Your task to perform on an android device: What's the weather today? Image 0: 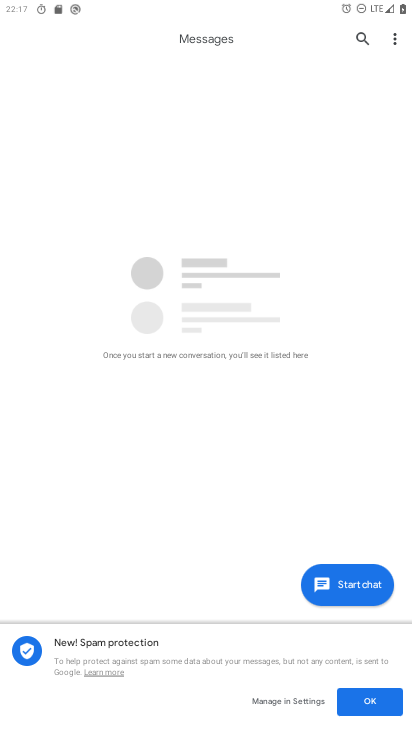
Step 0: drag from (183, 563) to (287, 310)
Your task to perform on an android device: What's the weather today? Image 1: 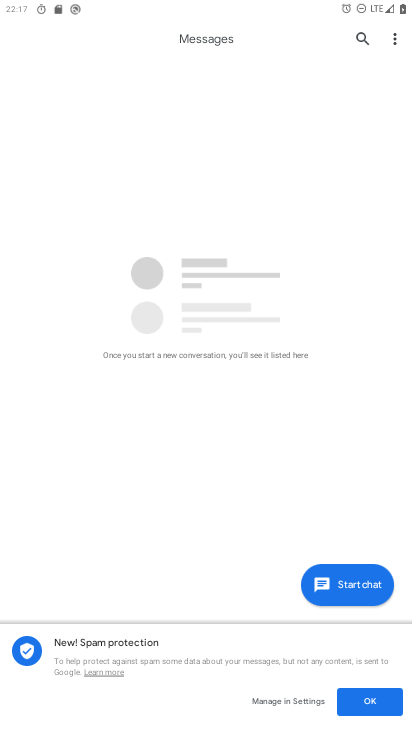
Step 1: drag from (214, 469) to (392, 222)
Your task to perform on an android device: What's the weather today? Image 2: 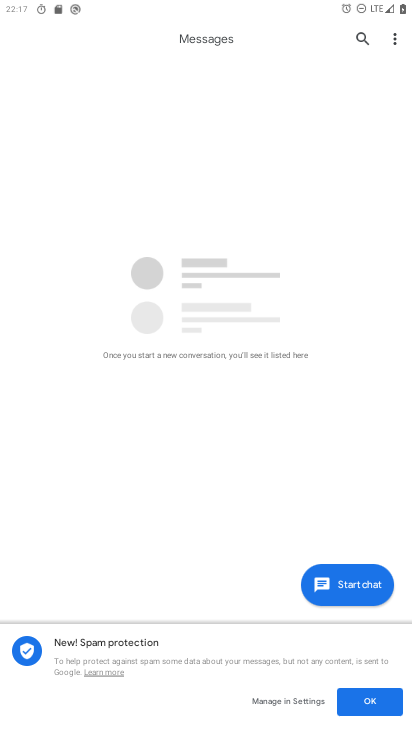
Step 2: drag from (246, 493) to (282, 402)
Your task to perform on an android device: What's the weather today? Image 3: 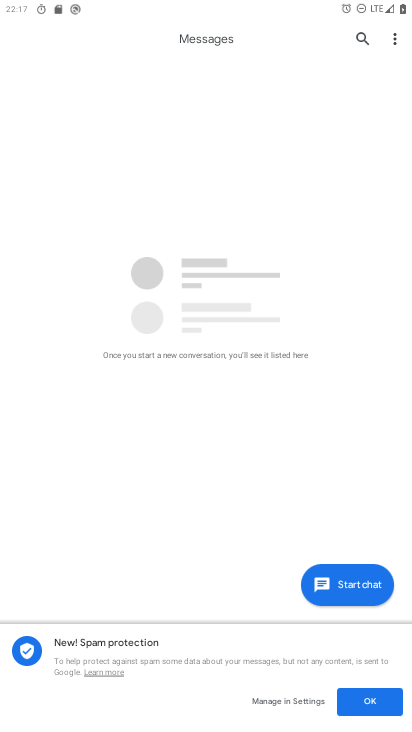
Step 3: press home button
Your task to perform on an android device: What's the weather today? Image 4: 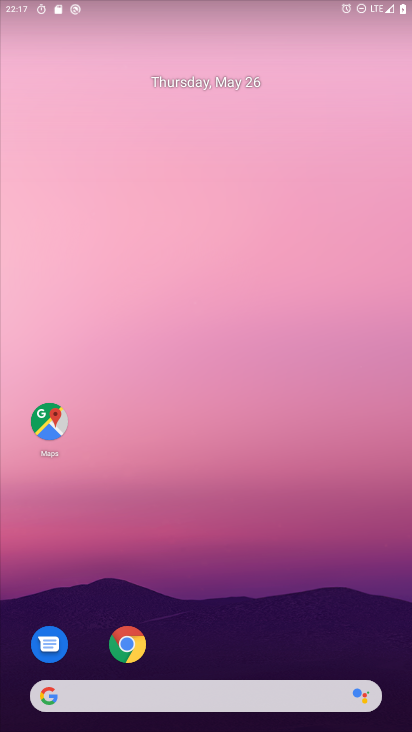
Step 4: drag from (180, 584) to (269, 153)
Your task to perform on an android device: What's the weather today? Image 5: 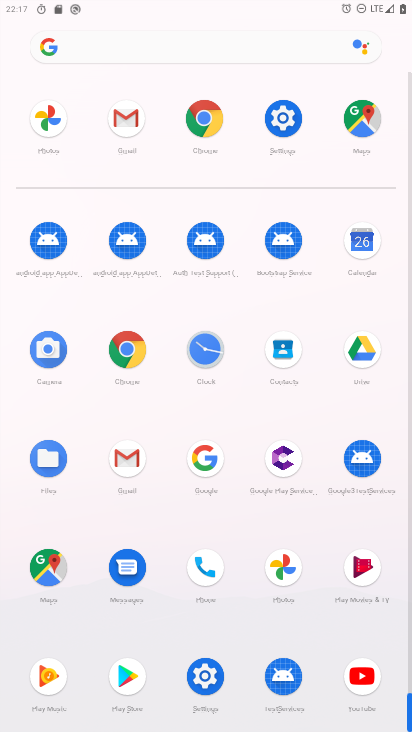
Step 5: click (184, 44)
Your task to perform on an android device: What's the weather today? Image 6: 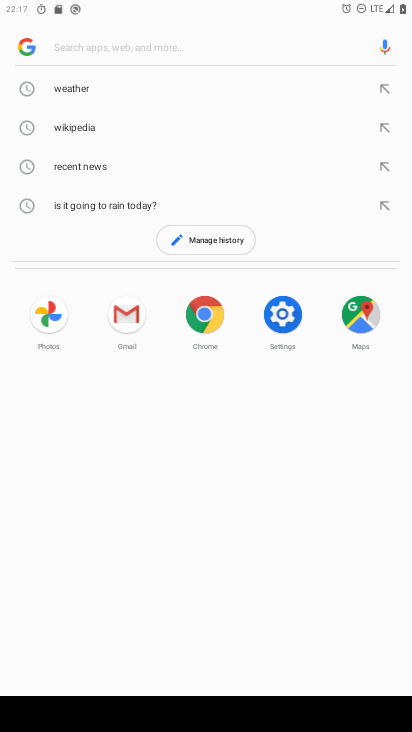
Step 6: click (105, 93)
Your task to perform on an android device: What's the weather today? Image 7: 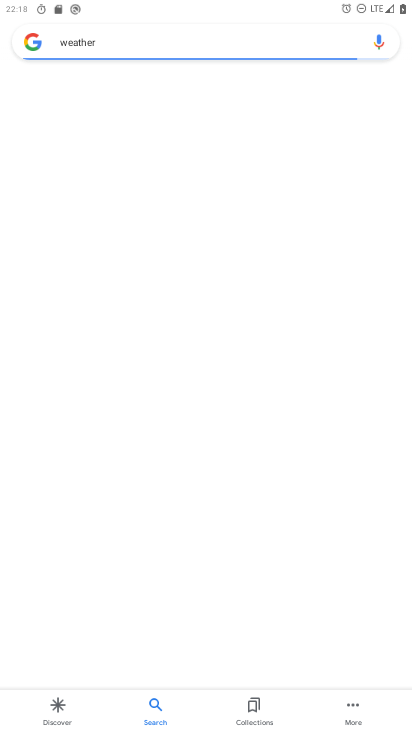
Step 7: click (128, 41)
Your task to perform on an android device: What's the weather today? Image 8: 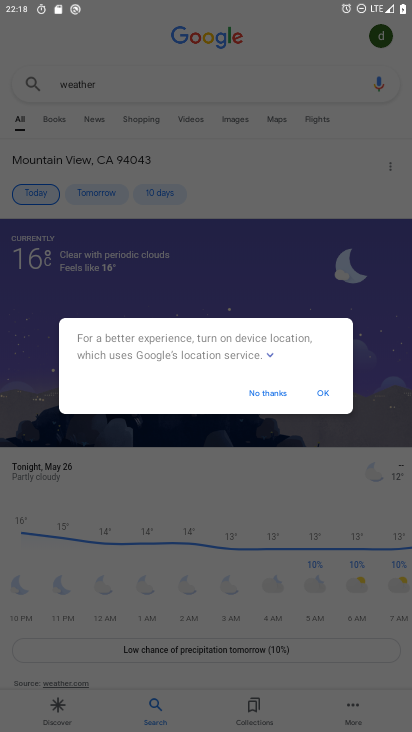
Step 8: click (319, 389)
Your task to perform on an android device: What's the weather today? Image 9: 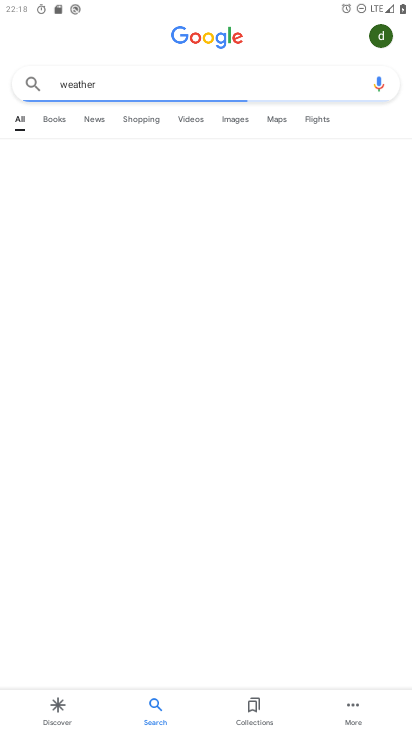
Step 9: click (119, 83)
Your task to perform on an android device: What's the weather today? Image 10: 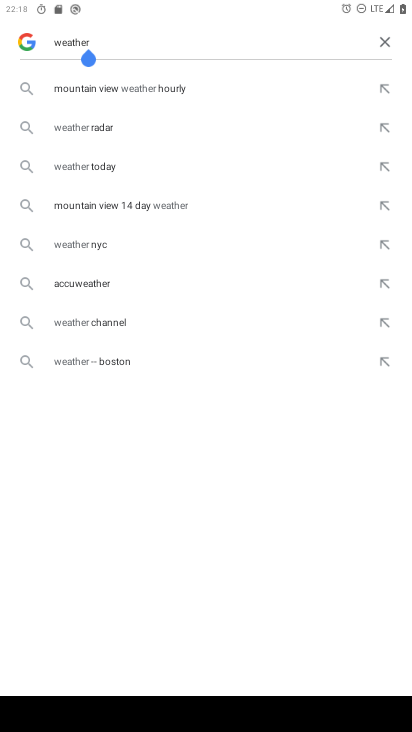
Step 10: click (104, 169)
Your task to perform on an android device: What's the weather today? Image 11: 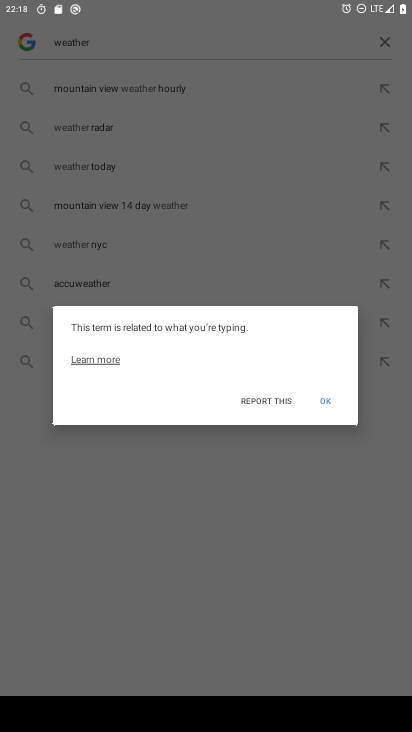
Step 11: click (315, 399)
Your task to perform on an android device: What's the weather today? Image 12: 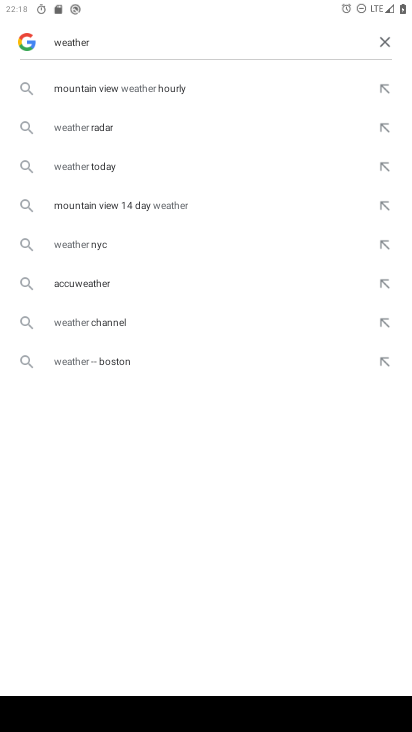
Step 12: drag from (272, 534) to (315, 319)
Your task to perform on an android device: What's the weather today? Image 13: 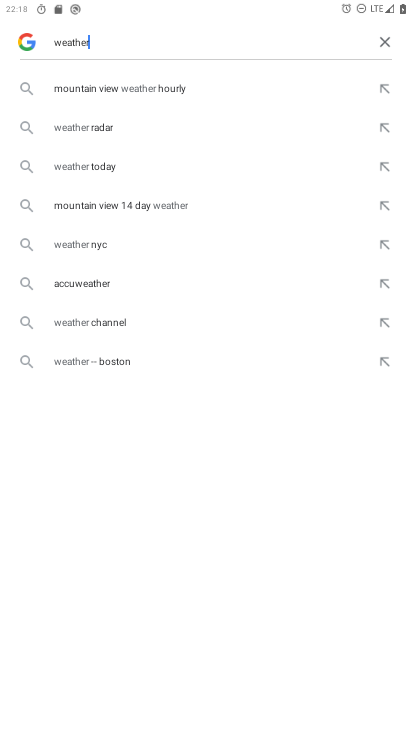
Step 13: click (88, 177)
Your task to perform on an android device: What's the weather today? Image 14: 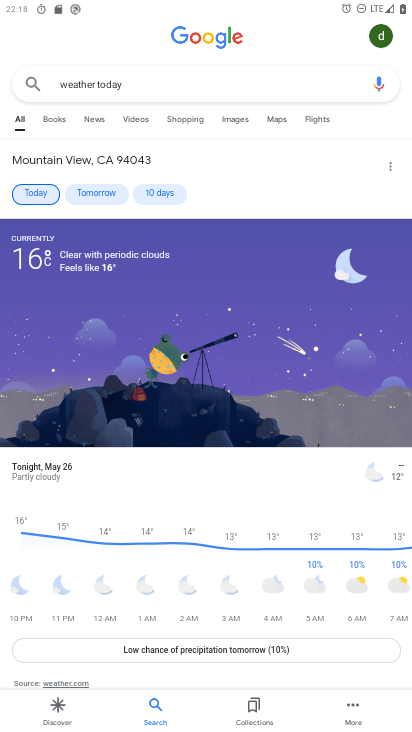
Step 14: task complete